Your task to perform on an android device: turn off location history Image 0: 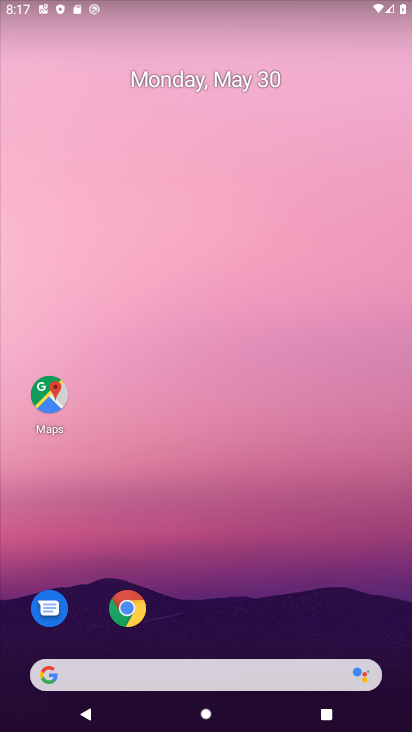
Step 0: drag from (391, 705) to (367, 162)
Your task to perform on an android device: turn off location history Image 1: 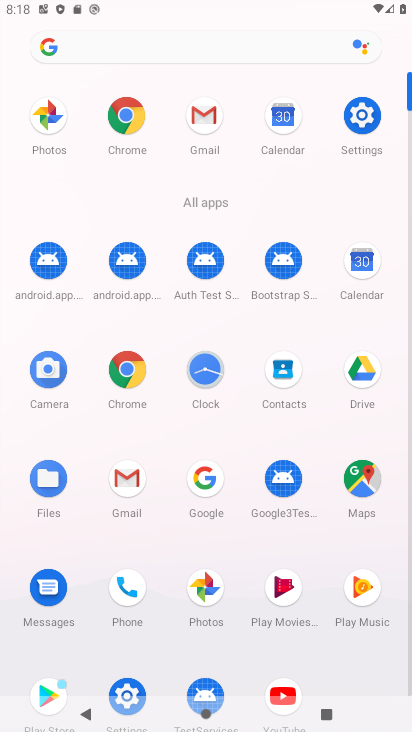
Step 1: click (370, 110)
Your task to perform on an android device: turn off location history Image 2: 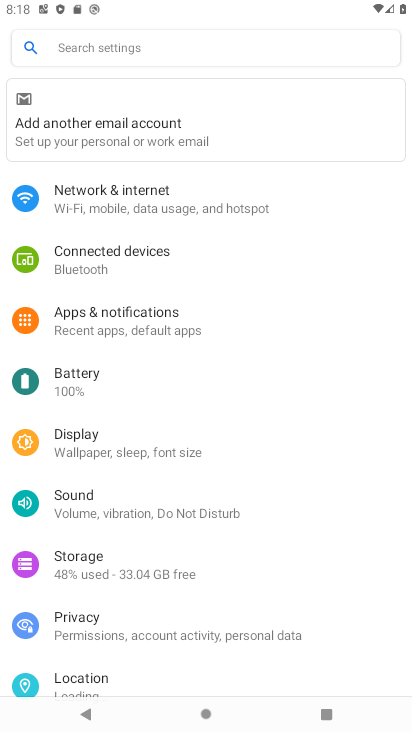
Step 2: click (56, 678)
Your task to perform on an android device: turn off location history Image 3: 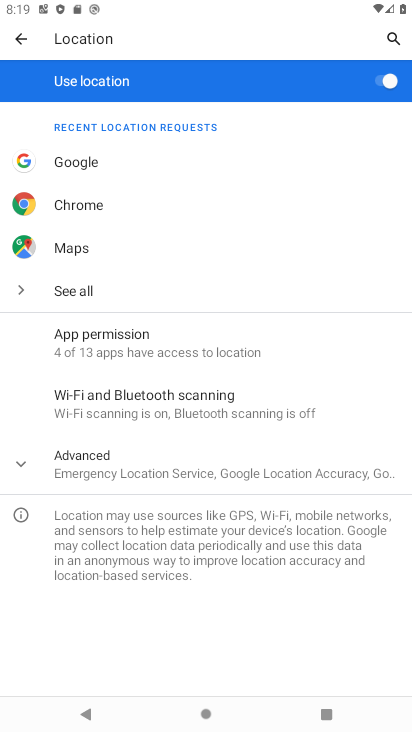
Step 3: click (15, 466)
Your task to perform on an android device: turn off location history Image 4: 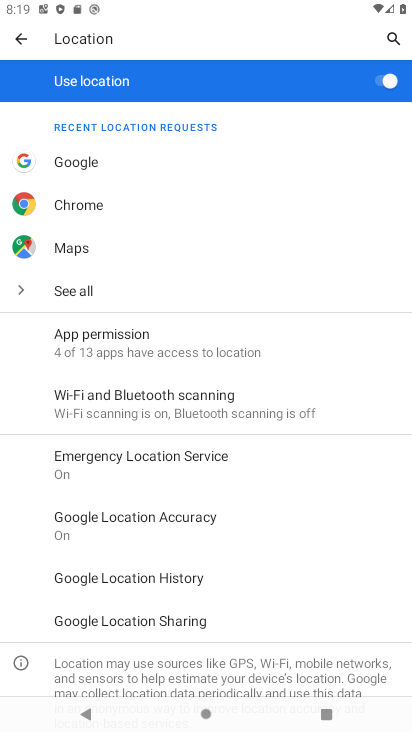
Step 4: click (136, 576)
Your task to perform on an android device: turn off location history Image 5: 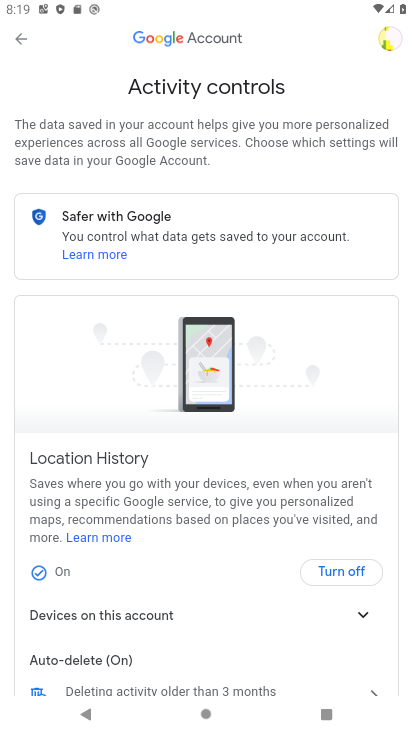
Step 5: click (341, 565)
Your task to perform on an android device: turn off location history Image 6: 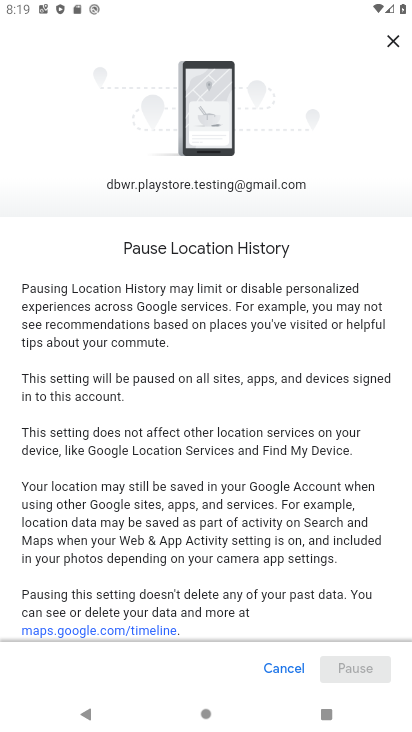
Step 6: drag from (291, 607) to (290, 293)
Your task to perform on an android device: turn off location history Image 7: 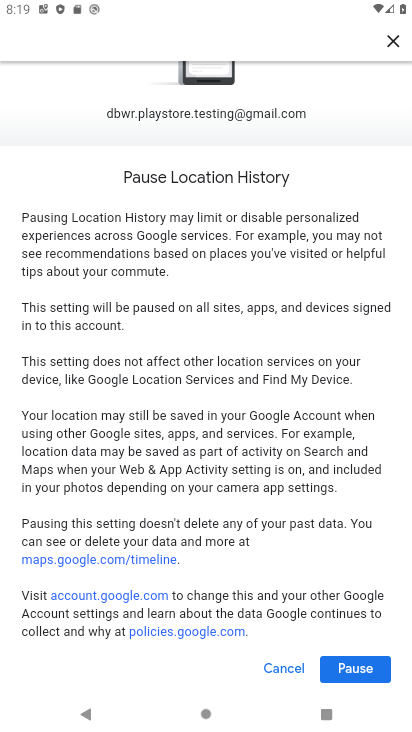
Step 7: click (336, 671)
Your task to perform on an android device: turn off location history Image 8: 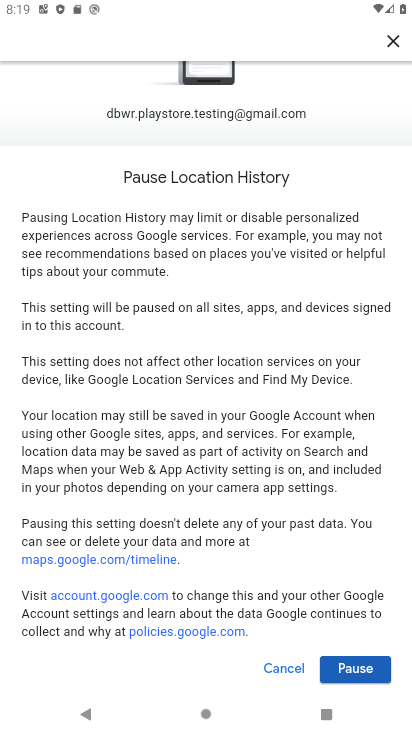
Step 8: click (353, 671)
Your task to perform on an android device: turn off location history Image 9: 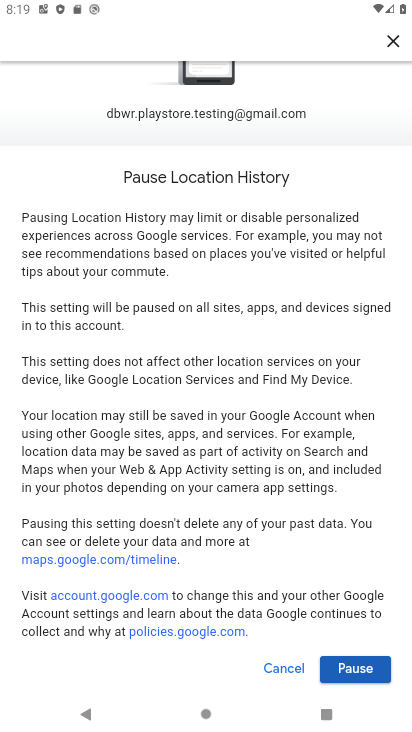
Step 9: click (353, 671)
Your task to perform on an android device: turn off location history Image 10: 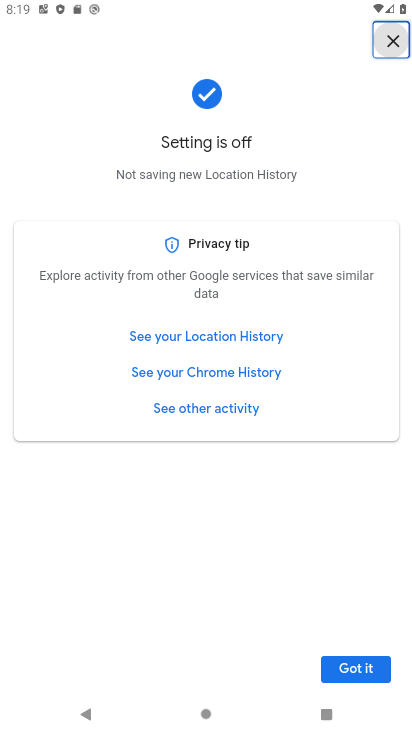
Step 10: click (364, 675)
Your task to perform on an android device: turn off location history Image 11: 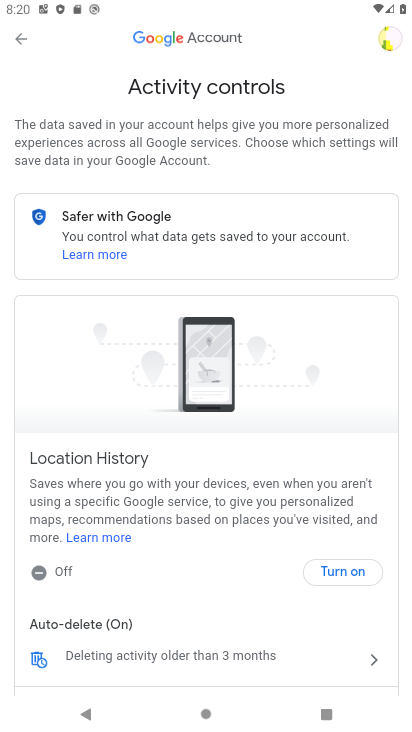
Step 11: task complete